Your task to perform on an android device: turn pop-ups off in chrome Image 0: 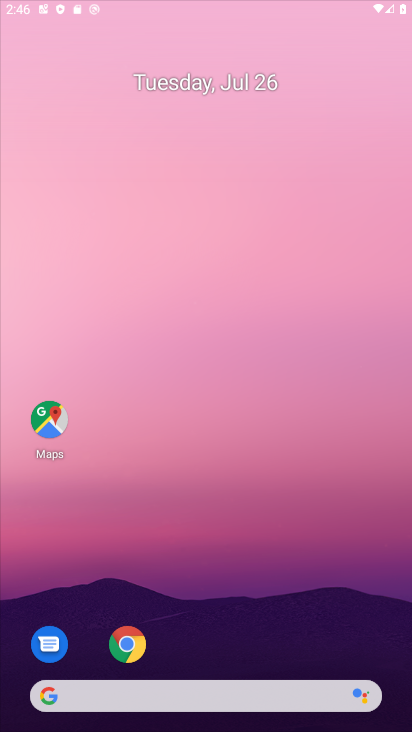
Step 0: press home button
Your task to perform on an android device: turn pop-ups off in chrome Image 1: 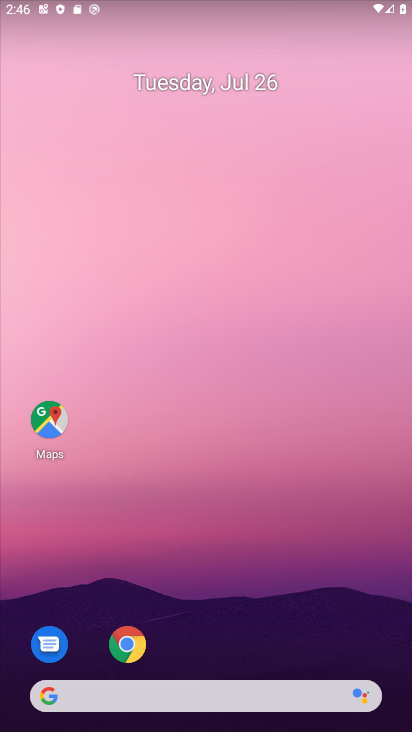
Step 1: click (115, 653)
Your task to perform on an android device: turn pop-ups off in chrome Image 2: 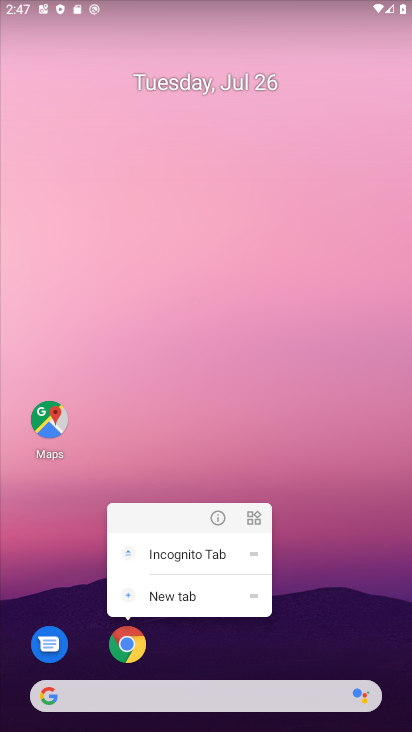
Step 2: click (119, 646)
Your task to perform on an android device: turn pop-ups off in chrome Image 3: 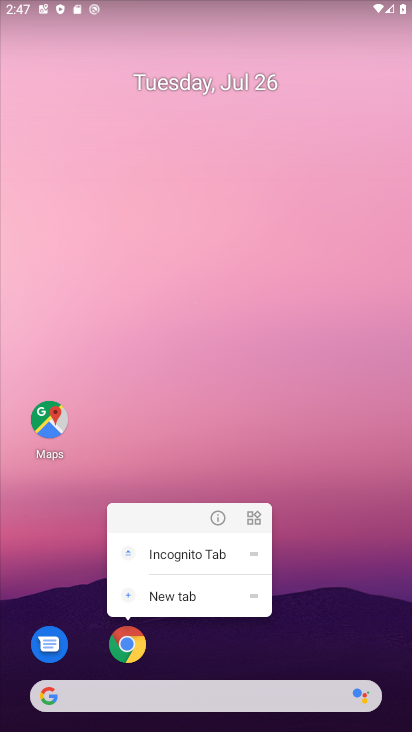
Step 3: click (113, 646)
Your task to perform on an android device: turn pop-ups off in chrome Image 4: 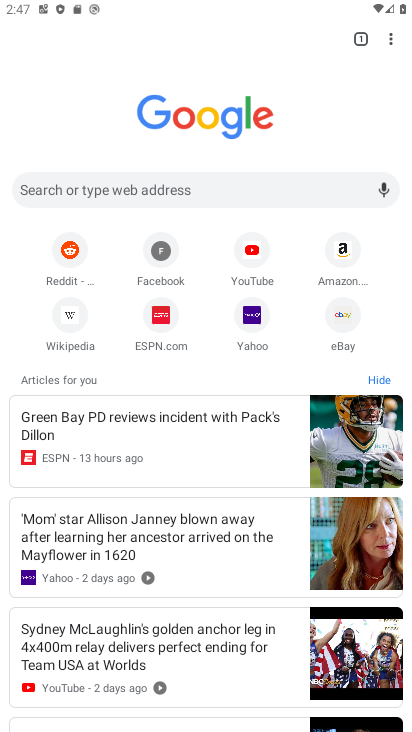
Step 4: drag from (394, 32) to (263, 327)
Your task to perform on an android device: turn pop-ups off in chrome Image 5: 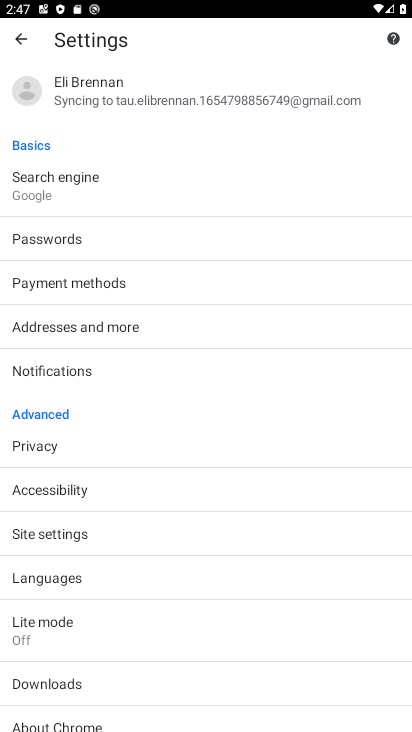
Step 5: click (61, 529)
Your task to perform on an android device: turn pop-ups off in chrome Image 6: 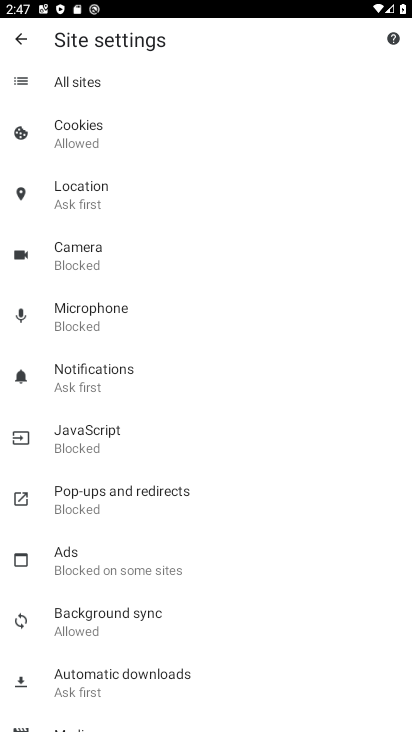
Step 6: click (110, 496)
Your task to perform on an android device: turn pop-ups off in chrome Image 7: 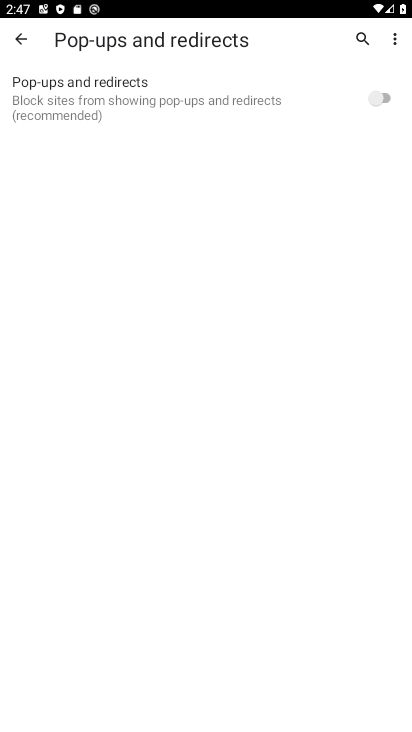
Step 7: task complete